Your task to perform on an android device: Open Google Chrome and open the bookmarks view Image 0: 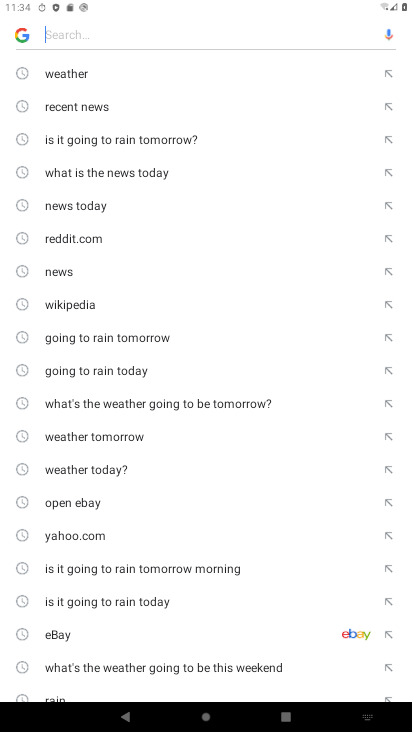
Step 0: press home button
Your task to perform on an android device: Open Google Chrome and open the bookmarks view Image 1: 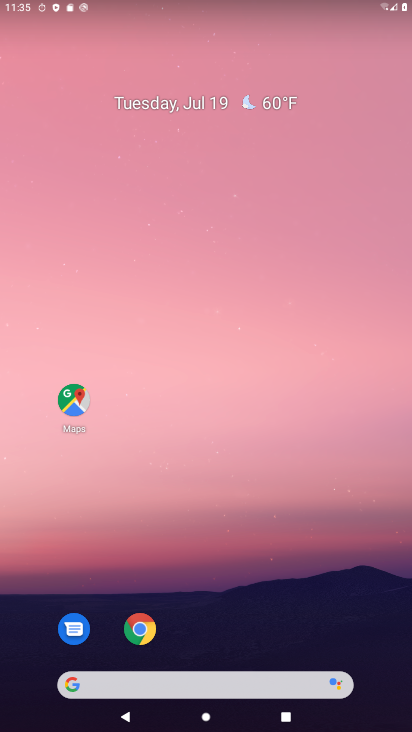
Step 1: click (142, 616)
Your task to perform on an android device: Open Google Chrome and open the bookmarks view Image 2: 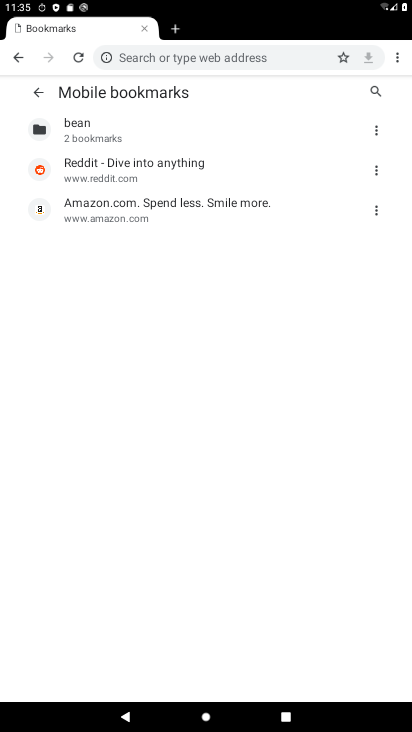
Step 2: click (393, 57)
Your task to perform on an android device: Open Google Chrome and open the bookmarks view Image 3: 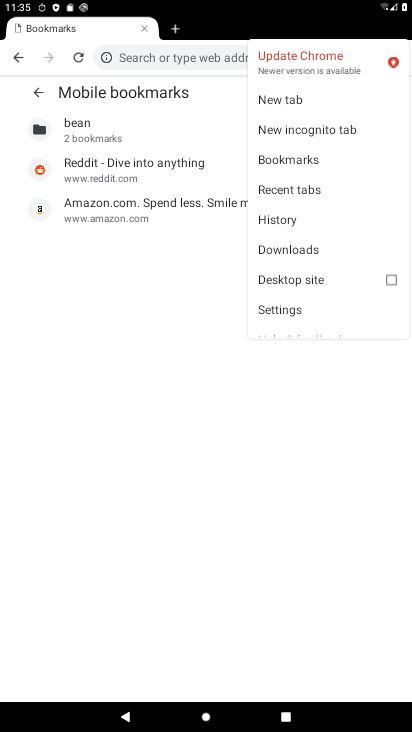
Step 3: click (277, 158)
Your task to perform on an android device: Open Google Chrome and open the bookmarks view Image 4: 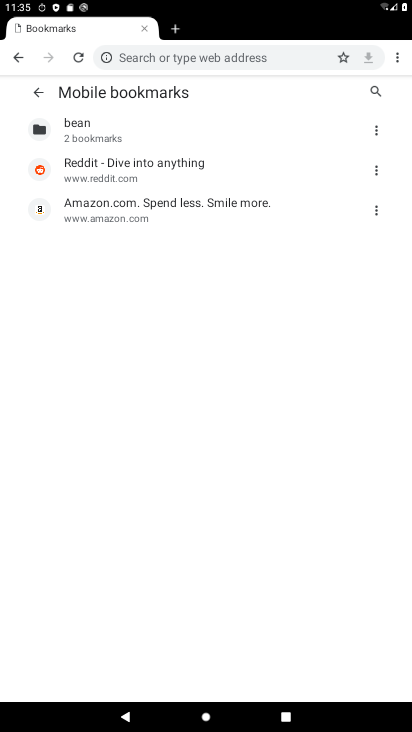
Step 4: task complete